Your task to perform on an android device: show emergency info Image 0: 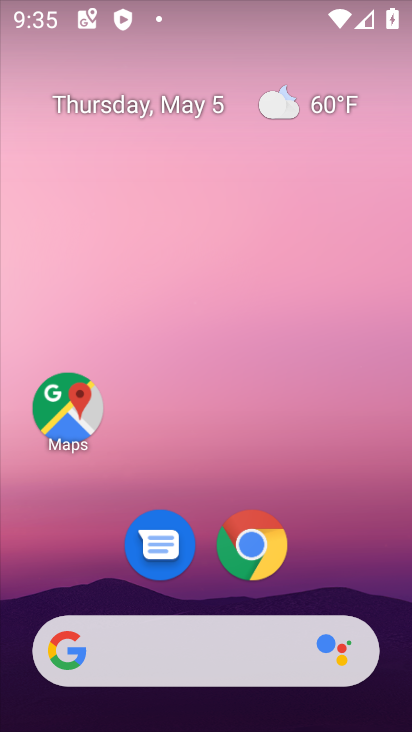
Step 0: drag from (126, 612) to (263, 83)
Your task to perform on an android device: show emergency info Image 1: 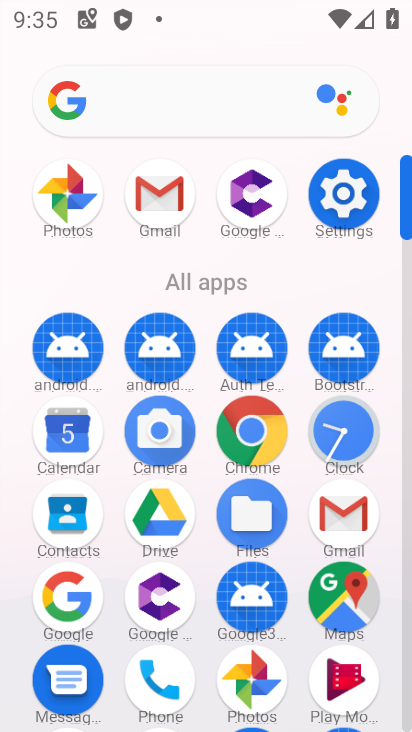
Step 1: click (346, 182)
Your task to perform on an android device: show emergency info Image 2: 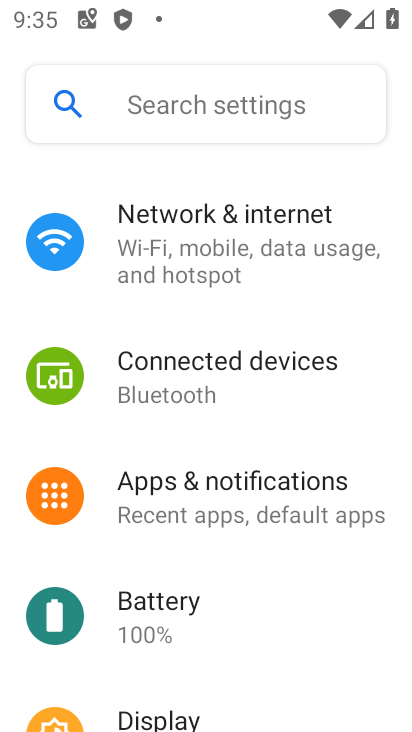
Step 2: drag from (212, 644) to (310, 214)
Your task to perform on an android device: show emergency info Image 3: 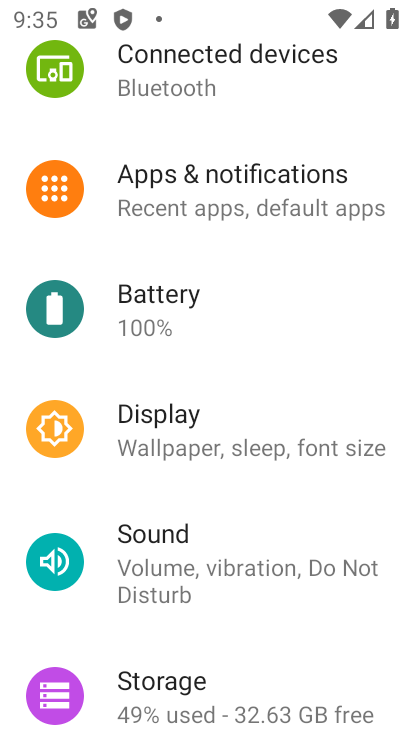
Step 3: drag from (242, 637) to (334, 140)
Your task to perform on an android device: show emergency info Image 4: 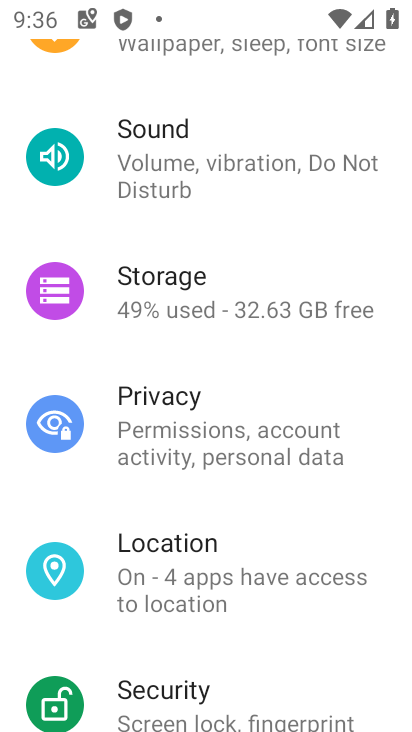
Step 4: drag from (180, 561) to (274, 109)
Your task to perform on an android device: show emergency info Image 5: 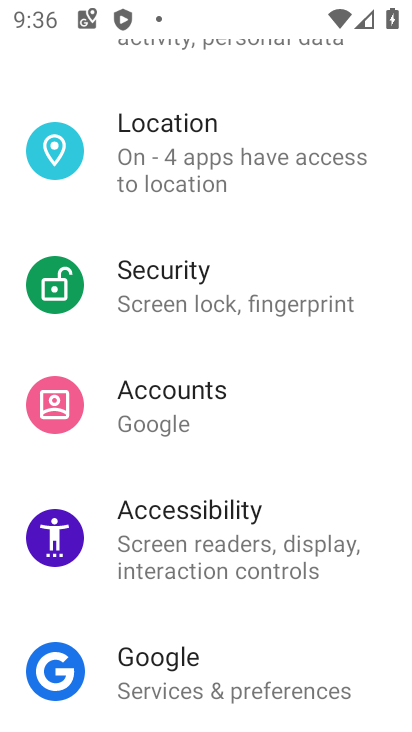
Step 5: drag from (114, 670) to (230, 178)
Your task to perform on an android device: show emergency info Image 6: 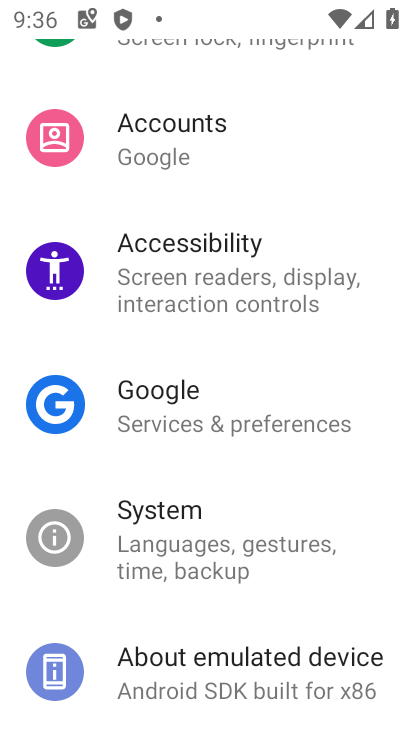
Step 6: click (266, 661)
Your task to perform on an android device: show emergency info Image 7: 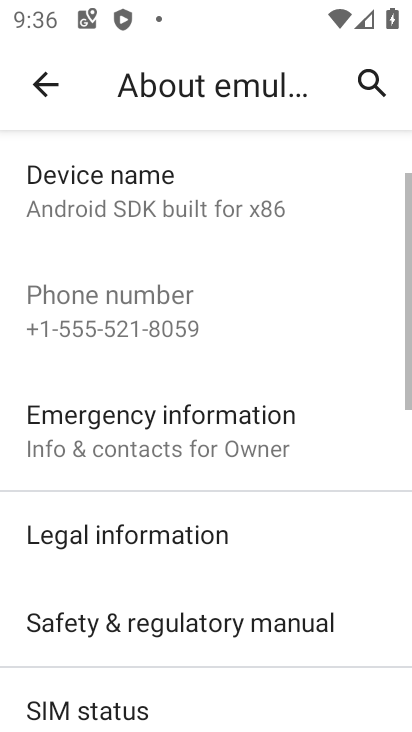
Step 7: click (292, 435)
Your task to perform on an android device: show emergency info Image 8: 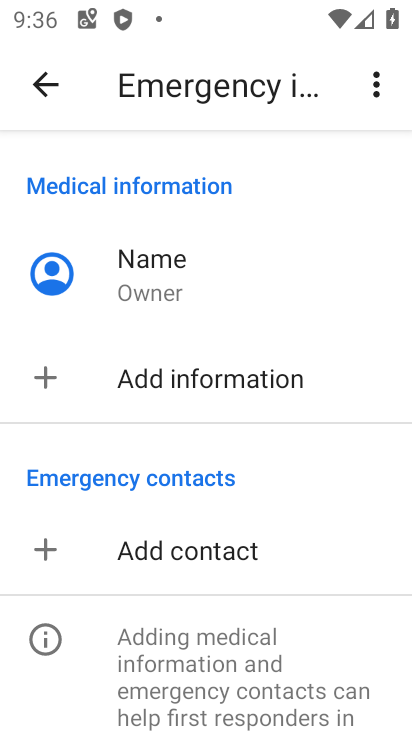
Step 8: task complete